Your task to perform on an android device: Show me popular games on the Play Store Image 0: 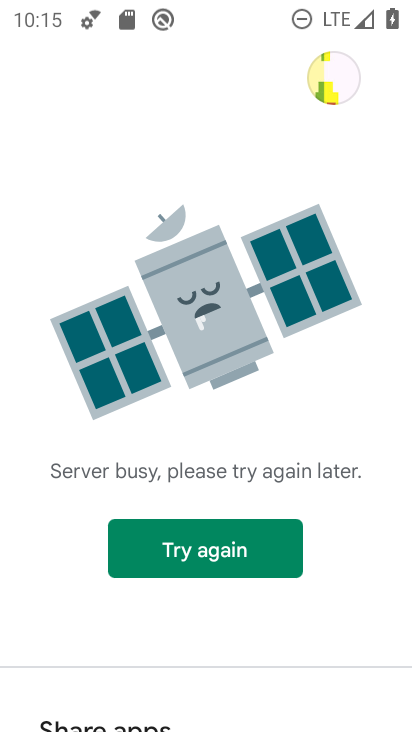
Step 0: press home button
Your task to perform on an android device: Show me popular games on the Play Store Image 1: 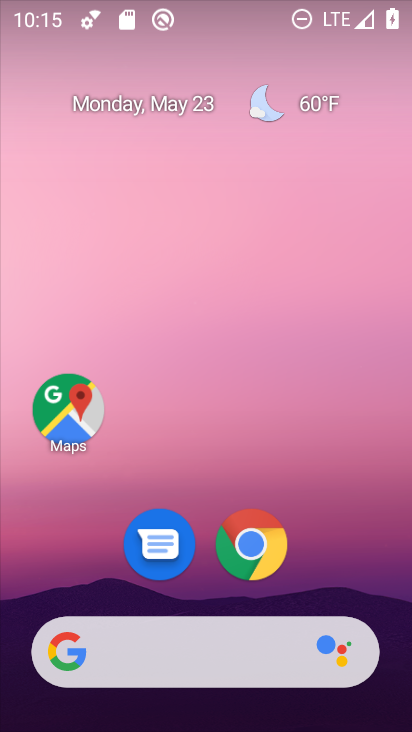
Step 1: drag from (310, 562) to (274, 203)
Your task to perform on an android device: Show me popular games on the Play Store Image 2: 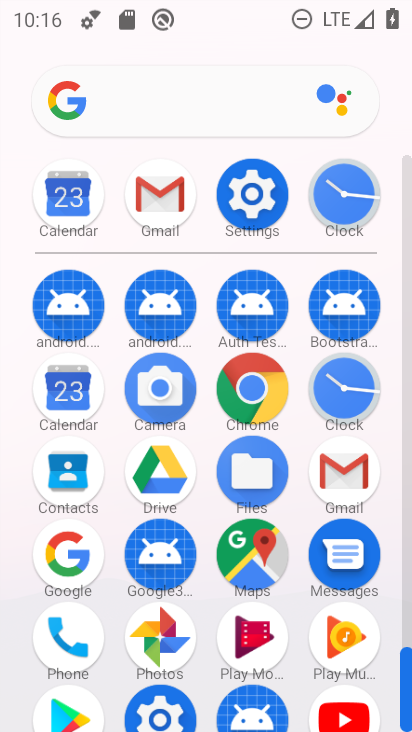
Step 2: click (73, 702)
Your task to perform on an android device: Show me popular games on the Play Store Image 3: 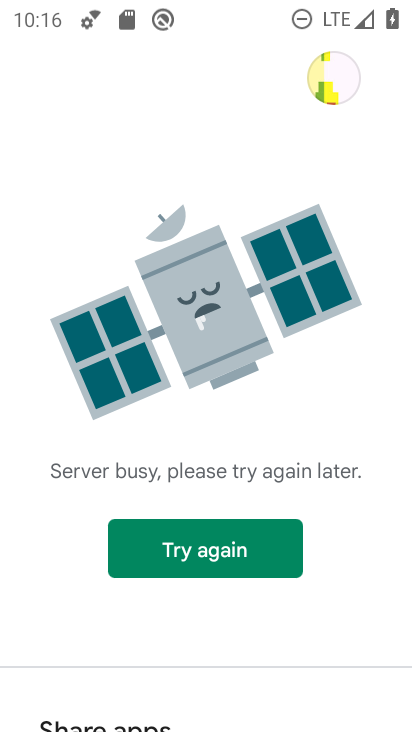
Step 3: click (197, 526)
Your task to perform on an android device: Show me popular games on the Play Store Image 4: 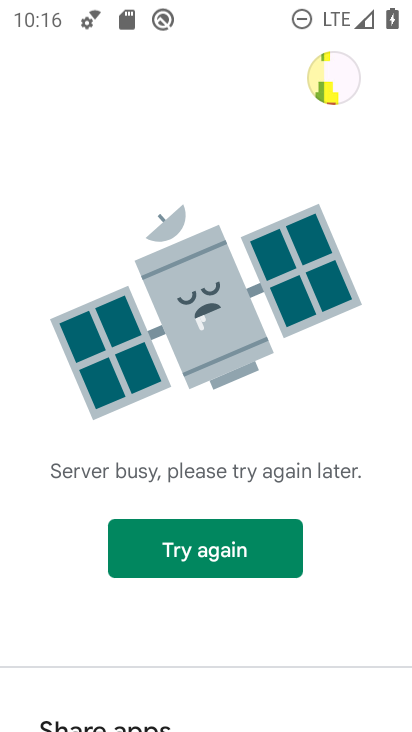
Step 4: task complete